Your task to perform on an android device: What's the weather going to be this weekend? Image 0: 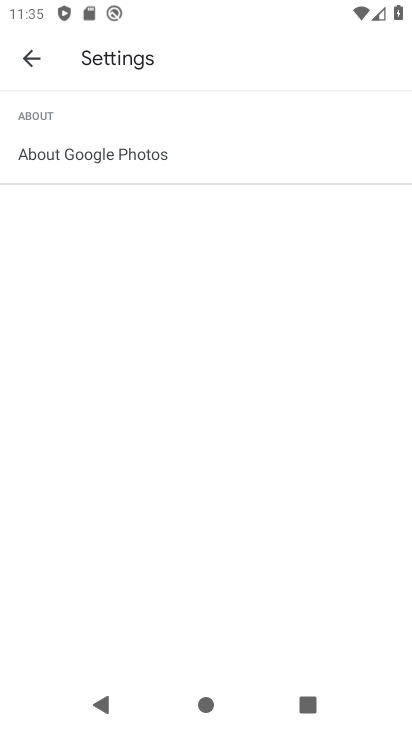
Step 0: press home button
Your task to perform on an android device: What's the weather going to be this weekend? Image 1: 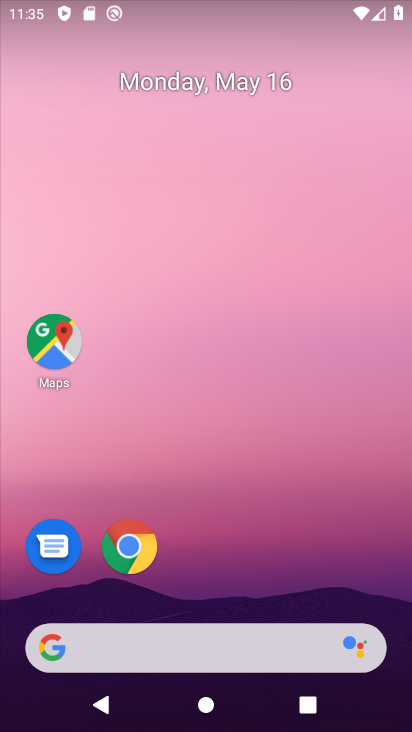
Step 1: drag from (5, 157) to (410, 262)
Your task to perform on an android device: What's the weather going to be this weekend? Image 2: 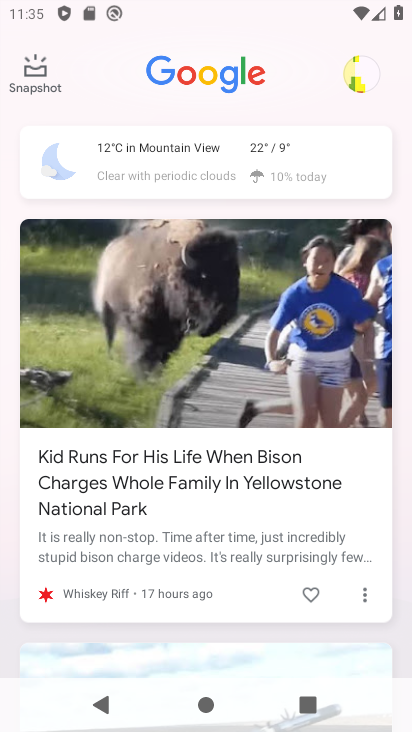
Step 2: click (259, 155)
Your task to perform on an android device: What's the weather going to be this weekend? Image 3: 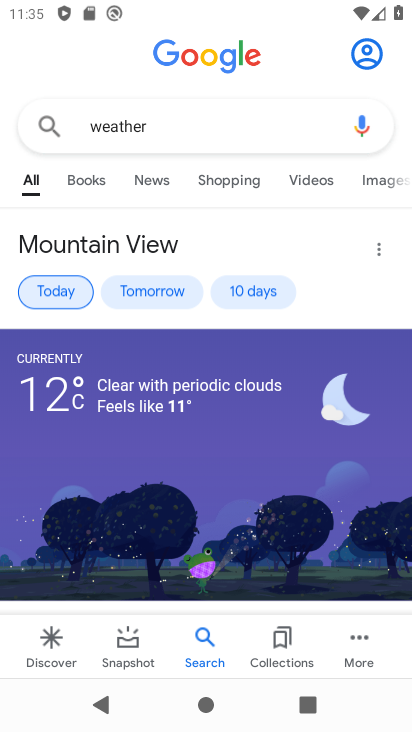
Step 3: drag from (277, 563) to (252, 370)
Your task to perform on an android device: What's the weather going to be this weekend? Image 4: 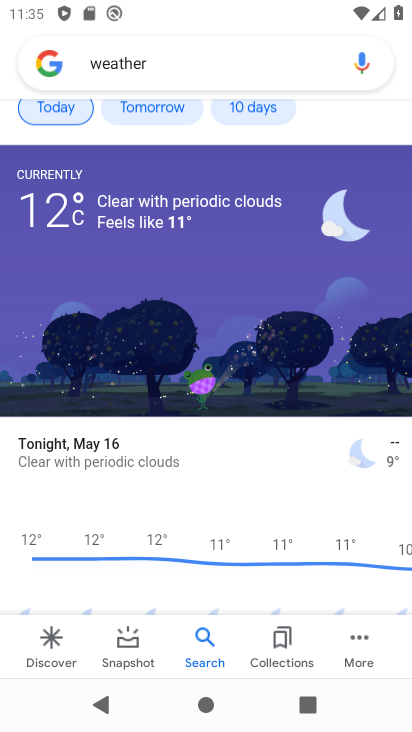
Step 4: click (245, 108)
Your task to perform on an android device: What's the weather going to be this weekend? Image 5: 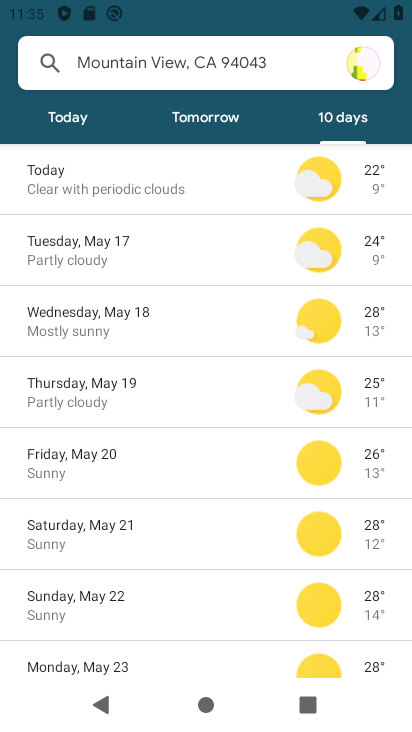
Step 5: task complete